Your task to perform on an android device: make emails show in primary in the gmail app Image 0: 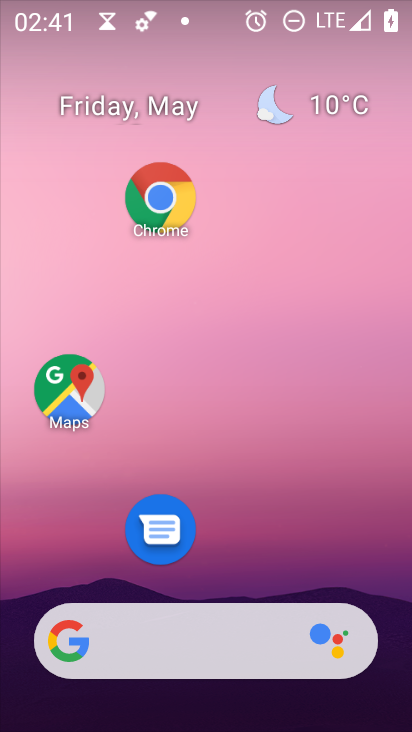
Step 0: drag from (228, 552) to (250, 193)
Your task to perform on an android device: make emails show in primary in the gmail app Image 1: 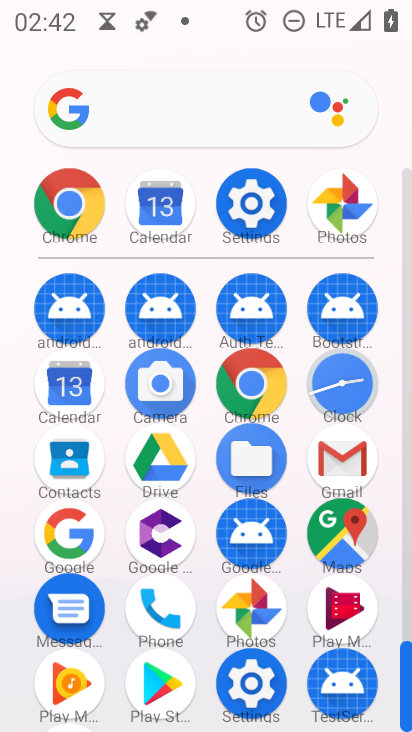
Step 1: click (330, 460)
Your task to perform on an android device: make emails show in primary in the gmail app Image 2: 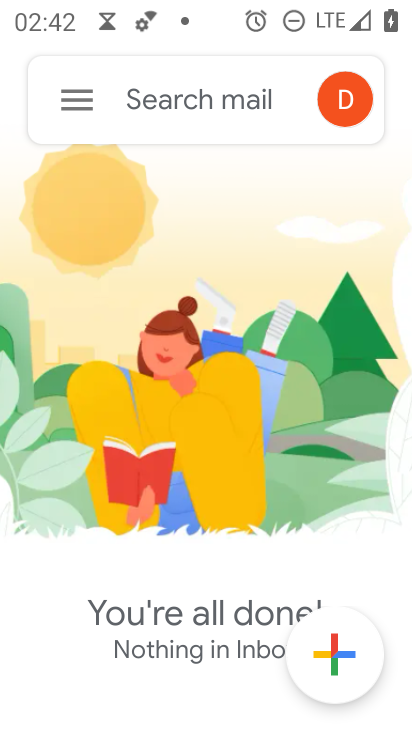
Step 2: click (56, 93)
Your task to perform on an android device: make emails show in primary in the gmail app Image 3: 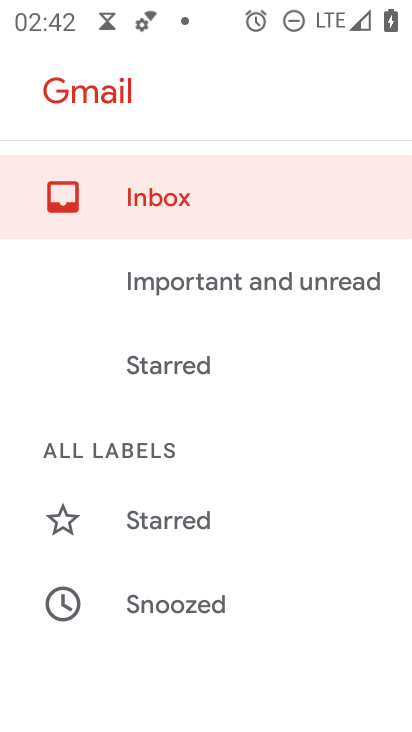
Step 3: drag from (218, 319) to (185, 675)
Your task to perform on an android device: make emails show in primary in the gmail app Image 4: 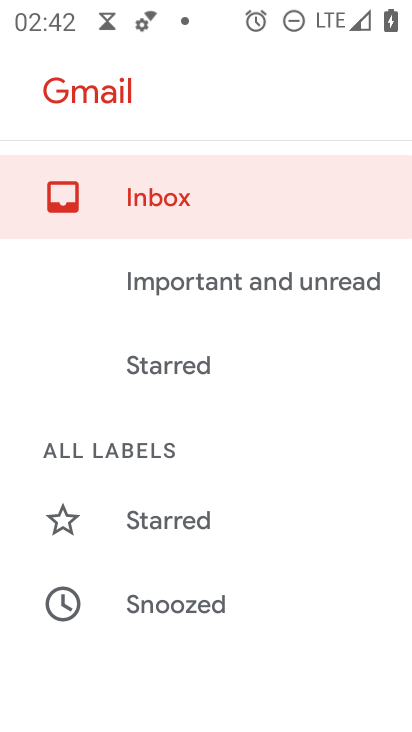
Step 4: drag from (151, 597) to (211, 277)
Your task to perform on an android device: make emails show in primary in the gmail app Image 5: 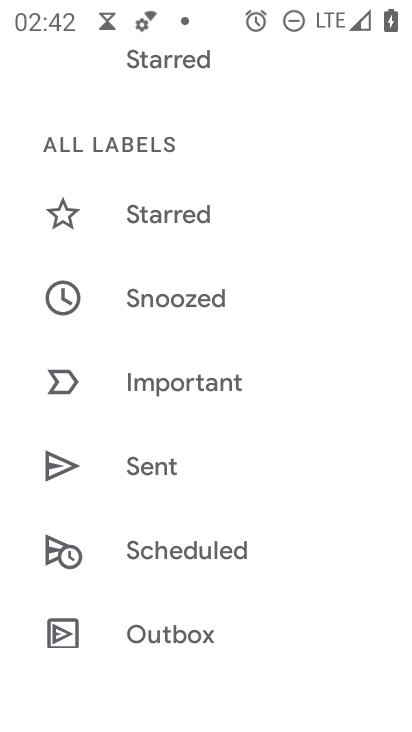
Step 5: drag from (182, 496) to (242, 133)
Your task to perform on an android device: make emails show in primary in the gmail app Image 6: 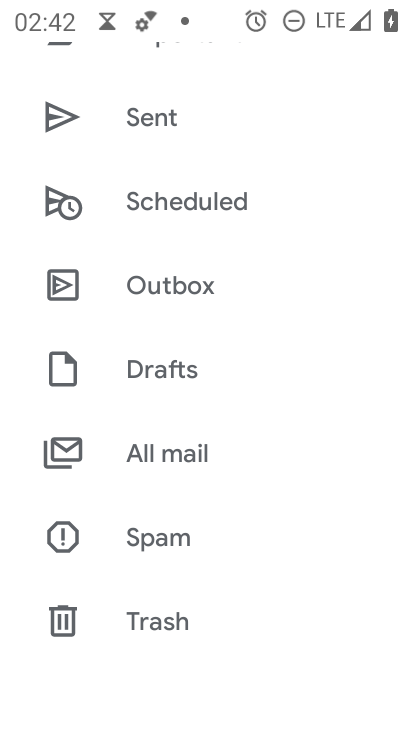
Step 6: drag from (211, 397) to (233, 200)
Your task to perform on an android device: make emails show in primary in the gmail app Image 7: 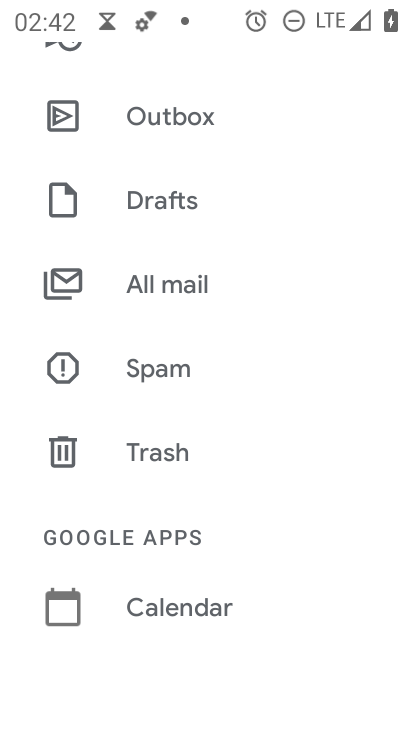
Step 7: drag from (147, 601) to (283, 163)
Your task to perform on an android device: make emails show in primary in the gmail app Image 8: 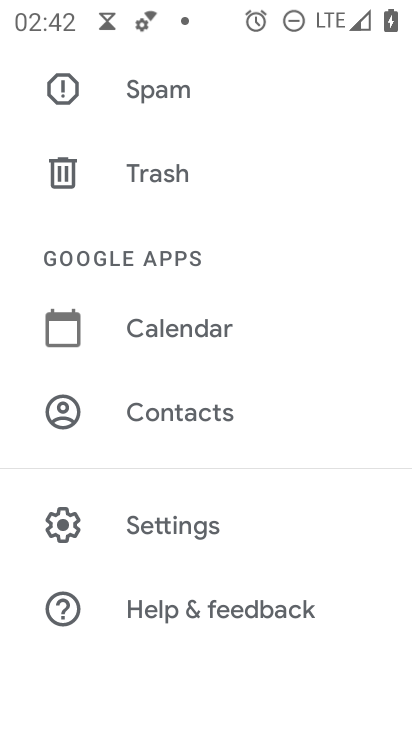
Step 8: drag from (97, 602) to (225, 198)
Your task to perform on an android device: make emails show in primary in the gmail app Image 9: 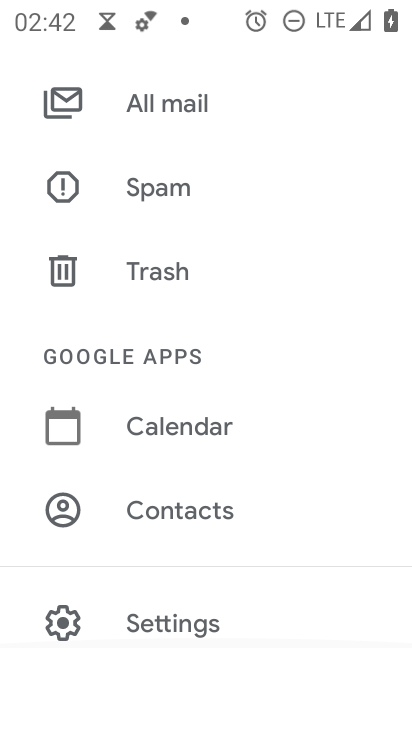
Step 9: drag from (183, 490) to (259, 115)
Your task to perform on an android device: make emails show in primary in the gmail app Image 10: 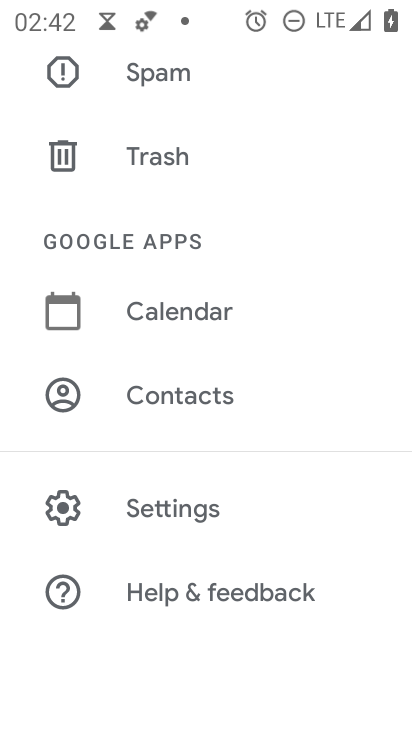
Step 10: click (143, 495)
Your task to perform on an android device: make emails show in primary in the gmail app Image 11: 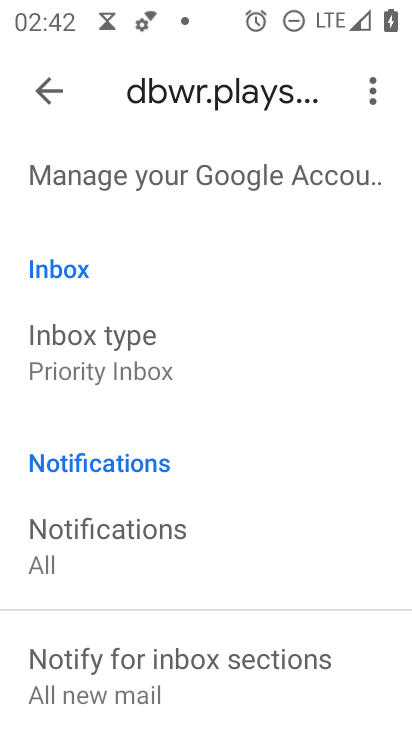
Step 11: task complete